Your task to perform on an android device: change the clock display to analog Image 0: 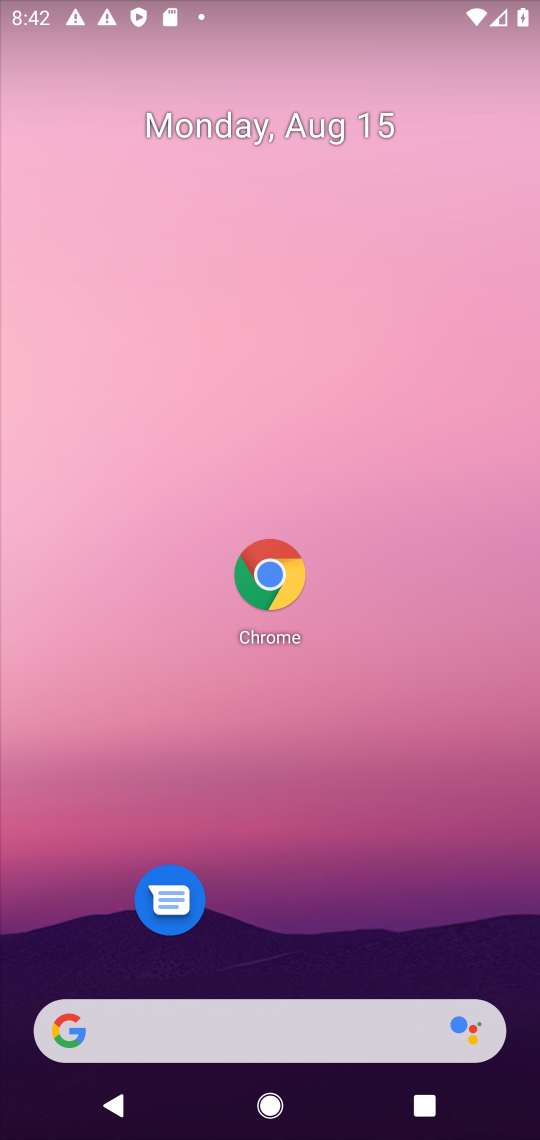
Step 0: drag from (355, 803) to (261, 68)
Your task to perform on an android device: change the clock display to analog Image 1: 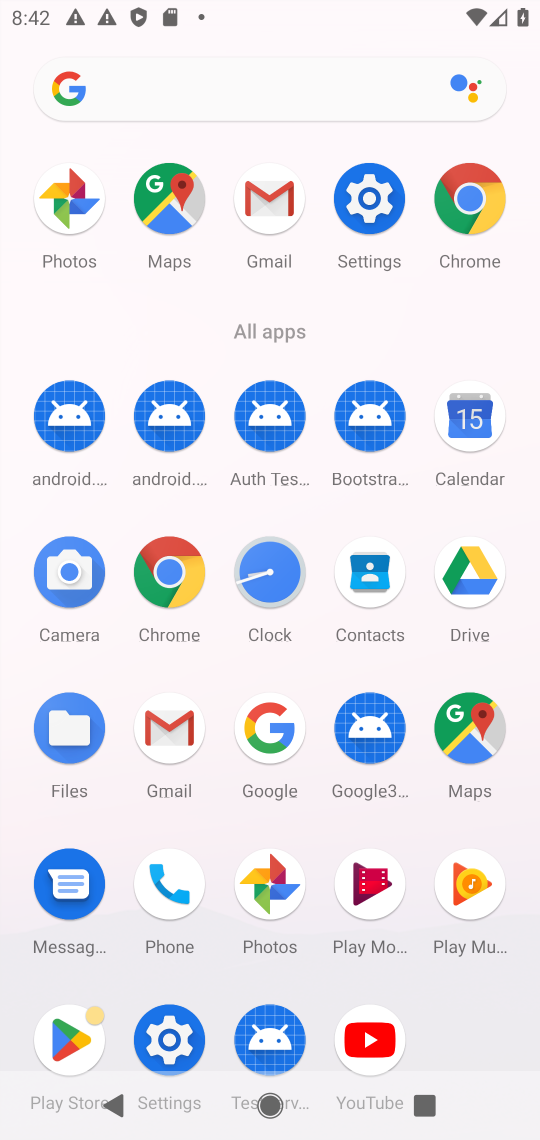
Step 1: click (249, 585)
Your task to perform on an android device: change the clock display to analog Image 2: 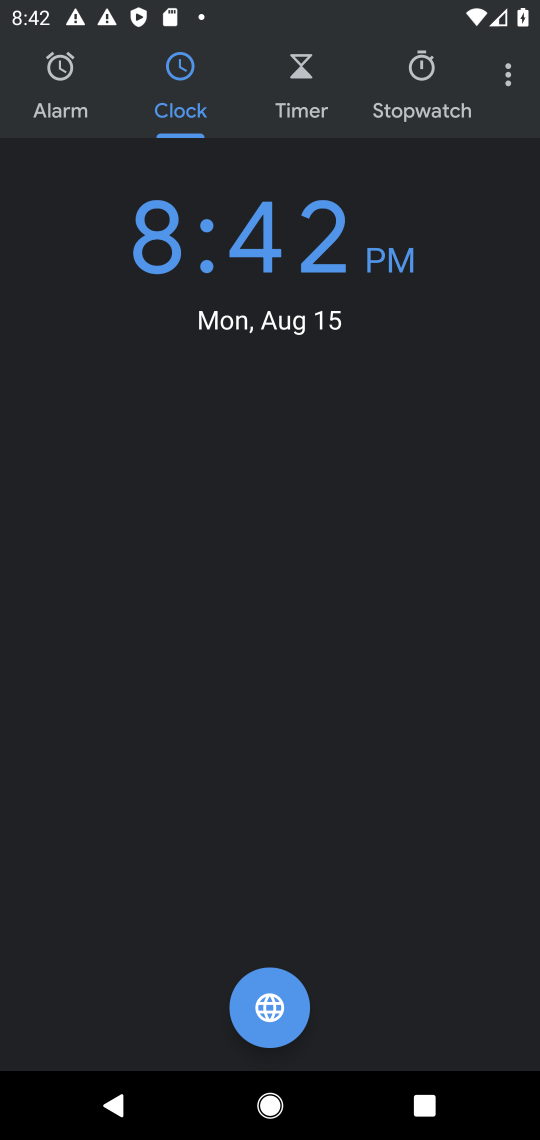
Step 2: click (518, 78)
Your task to perform on an android device: change the clock display to analog Image 3: 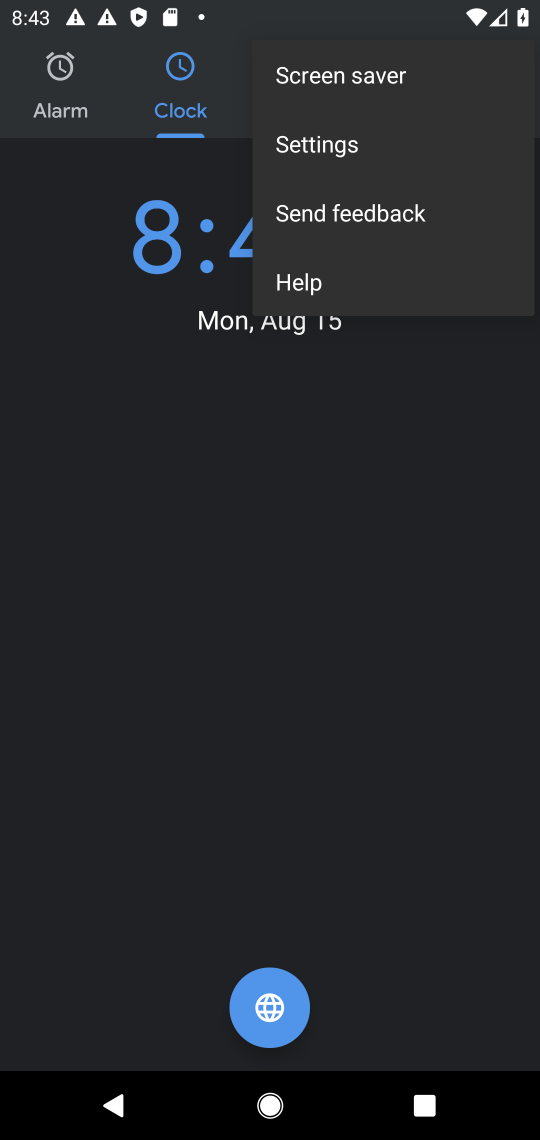
Step 3: click (318, 155)
Your task to perform on an android device: change the clock display to analog Image 4: 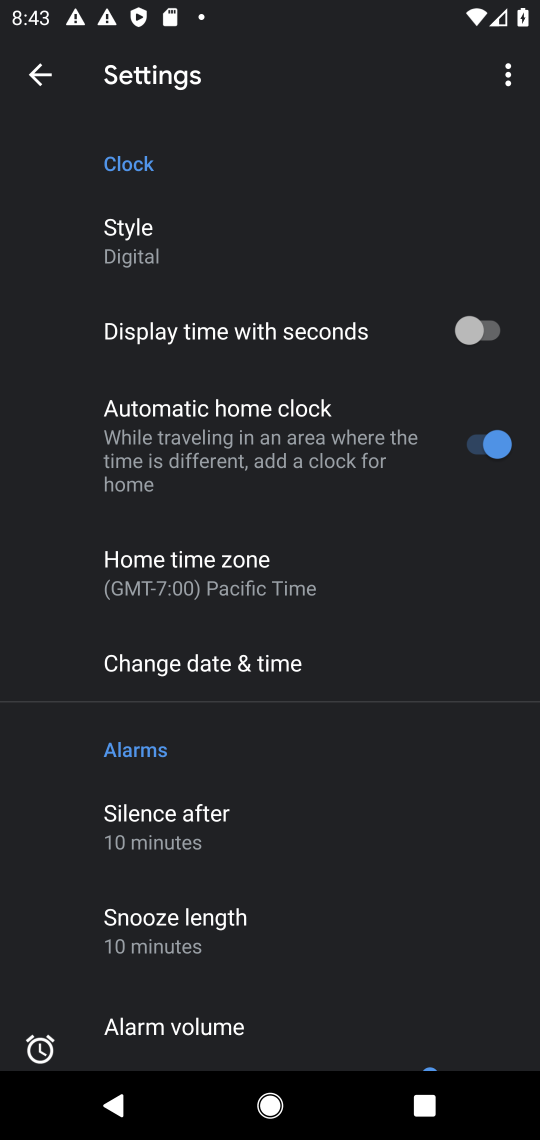
Step 4: click (340, 241)
Your task to perform on an android device: change the clock display to analog Image 5: 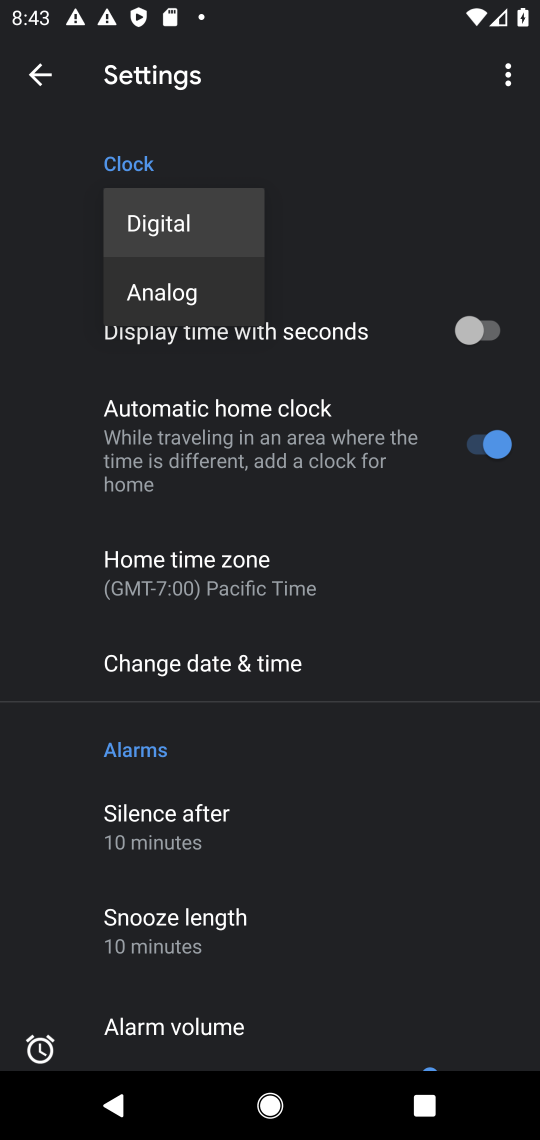
Step 5: click (189, 292)
Your task to perform on an android device: change the clock display to analog Image 6: 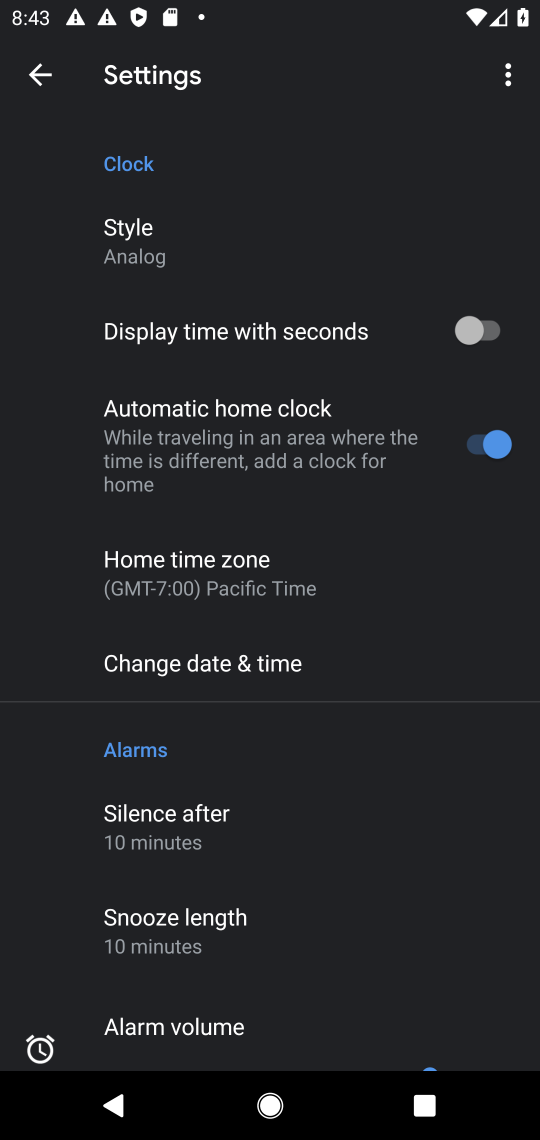
Step 6: task complete